Your task to perform on an android device: Open the calendar app, open the side menu, and click the "Day" option Image 0: 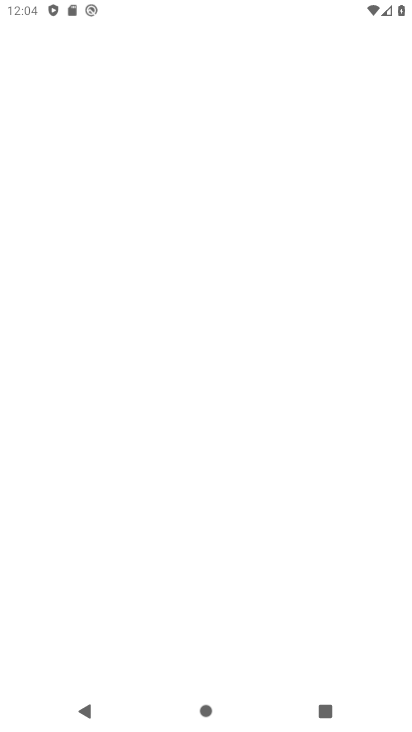
Step 0: press home button
Your task to perform on an android device: Open the calendar app, open the side menu, and click the "Day" option Image 1: 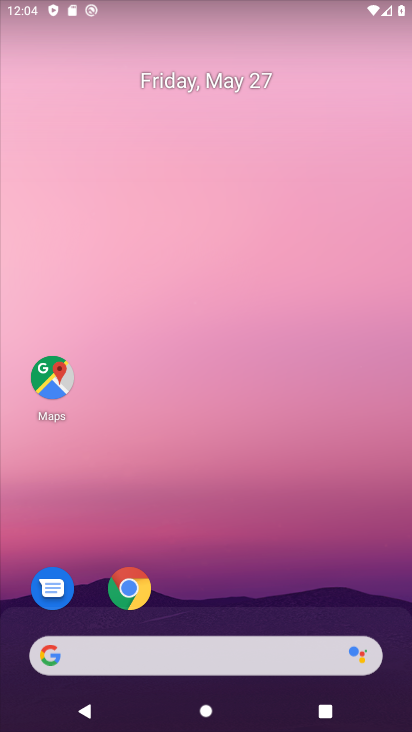
Step 1: drag from (211, 540) to (224, 68)
Your task to perform on an android device: Open the calendar app, open the side menu, and click the "Day" option Image 2: 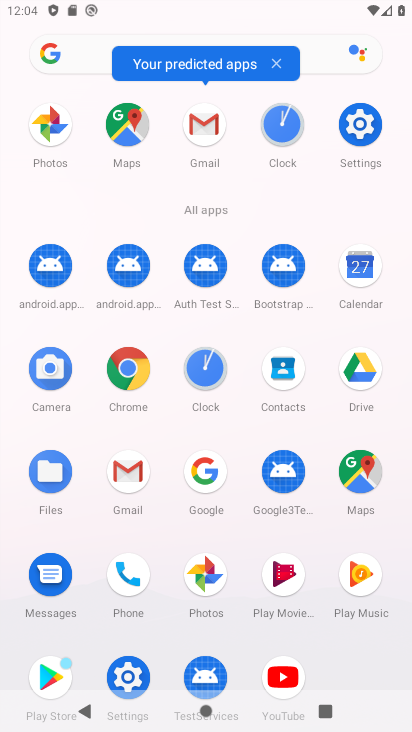
Step 2: click (357, 266)
Your task to perform on an android device: Open the calendar app, open the side menu, and click the "Day" option Image 3: 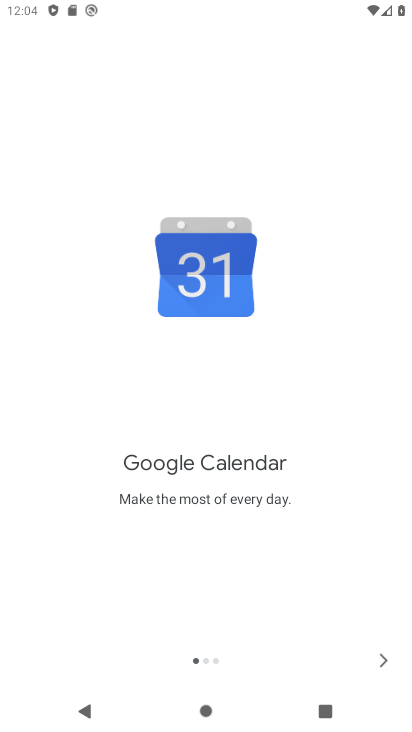
Step 3: click (383, 658)
Your task to perform on an android device: Open the calendar app, open the side menu, and click the "Day" option Image 4: 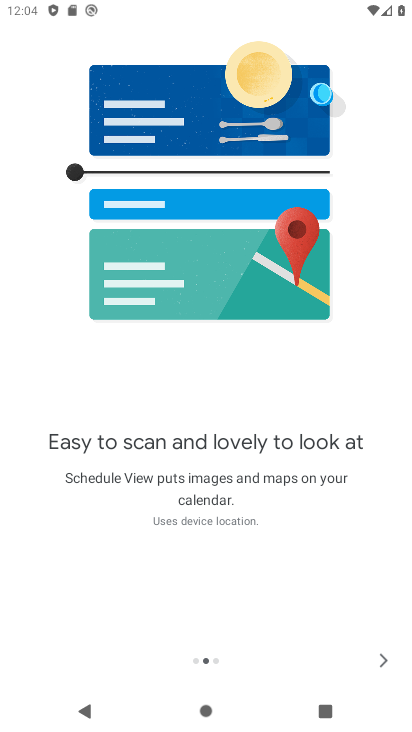
Step 4: click (383, 658)
Your task to perform on an android device: Open the calendar app, open the side menu, and click the "Day" option Image 5: 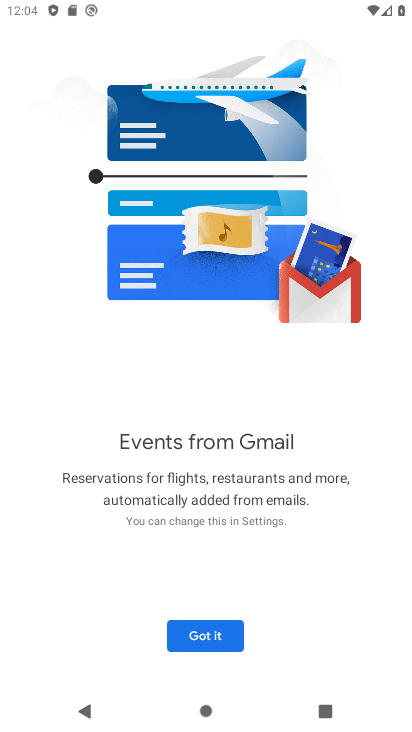
Step 5: click (232, 632)
Your task to perform on an android device: Open the calendar app, open the side menu, and click the "Day" option Image 6: 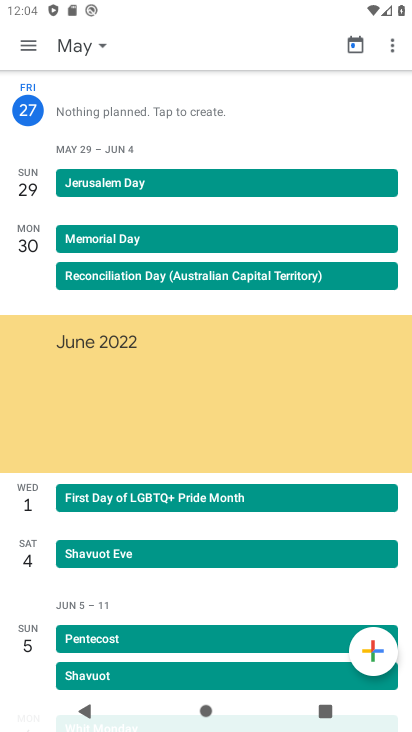
Step 6: click (28, 38)
Your task to perform on an android device: Open the calendar app, open the side menu, and click the "Day" option Image 7: 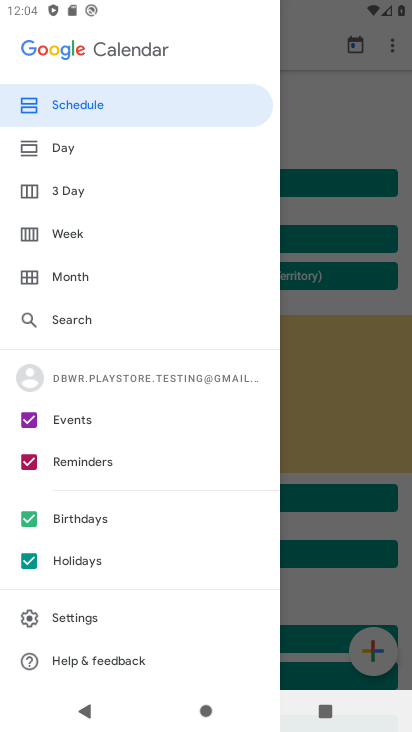
Step 7: click (34, 145)
Your task to perform on an android device: Open the calendar app, open the side menu, and click the "Day" option Image 8: 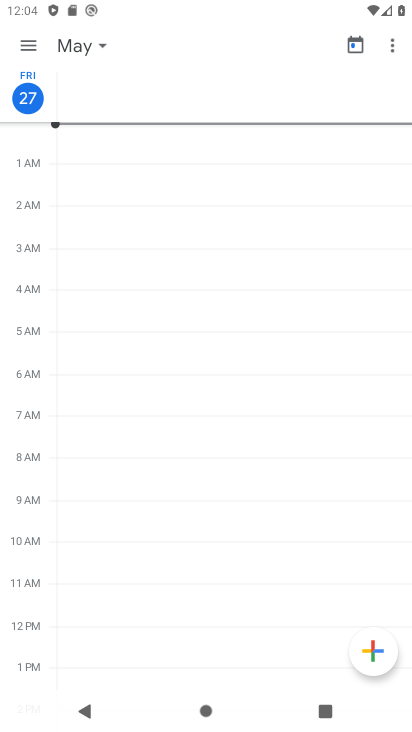
Step 8: task complete